Your task to perform on an android device: Search for seafood restaurants on Google Maps Image 0: 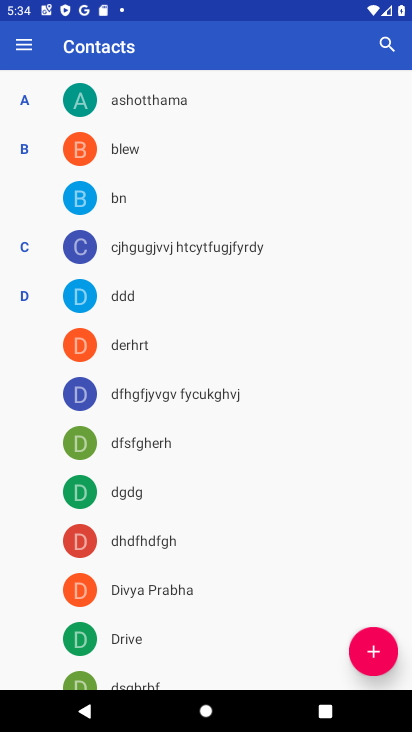
Step 0: press home button
Your task to perform on an android device: Search for seafood restaurants on Google Maps Image 1: 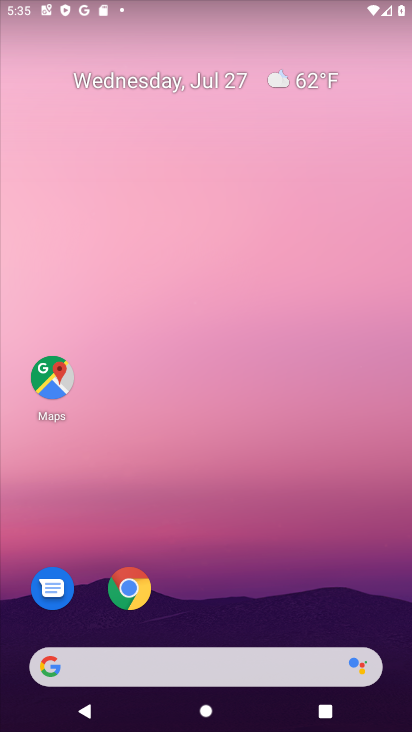
Step 1: click (182, 610)
Your task to perform on an android device: Search for seafood restaurants on Google Maps Image 2: 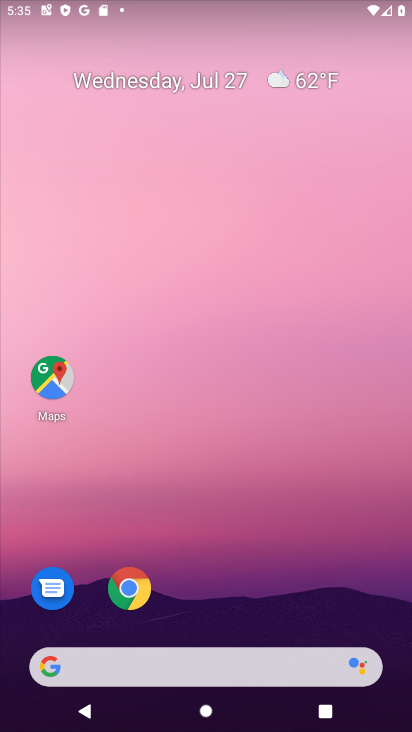
Step 2: click (59, 372)
Your task to perform on an android device: Search for seafood restaurants on Google Maps Image 3: 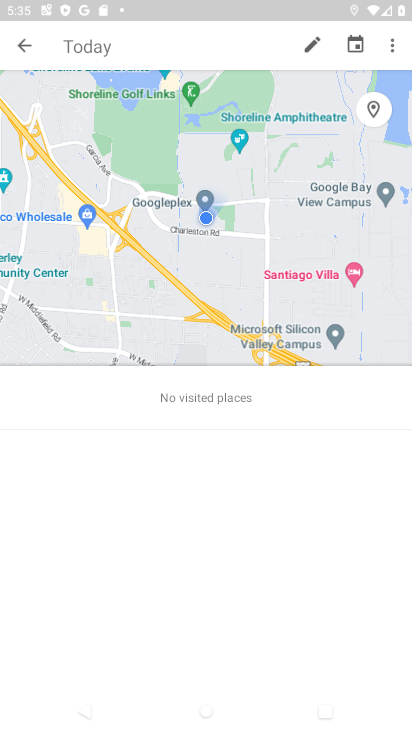
Step 3: click (22, 39)
Your task to perform on an android device: Search for seafood restaurants on Google Maps Image 4: 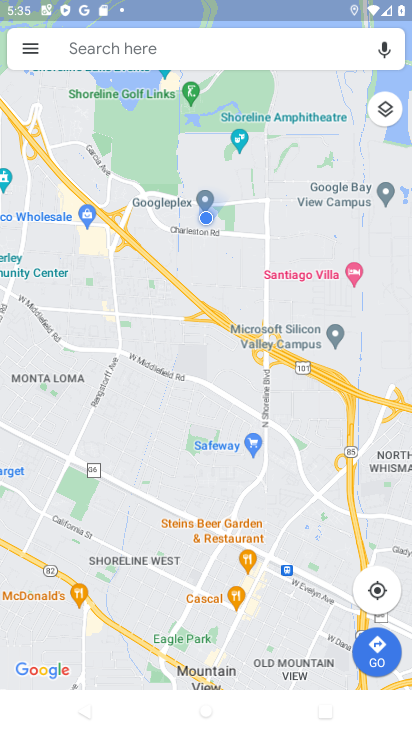
Step 4: click (107, 51)
Your task to perform on an android device: Search for seafood restaurants on Google Maps Image 5: 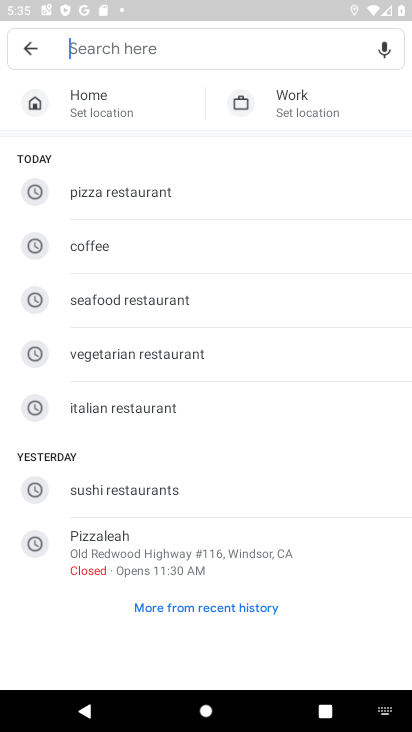
Step 5: click (140, 298)
Your task to perform on an android device: Search for seafood restaurants on Google Maps Image 6: 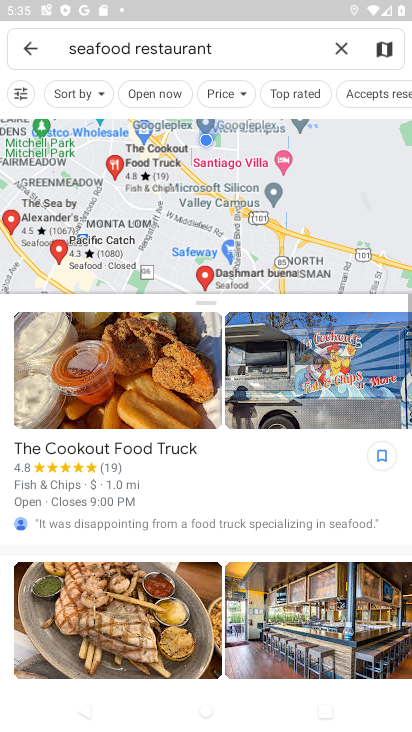
Step 6: task complete